Your task to perform on an android device: Go to Yahoo.com Image 0: 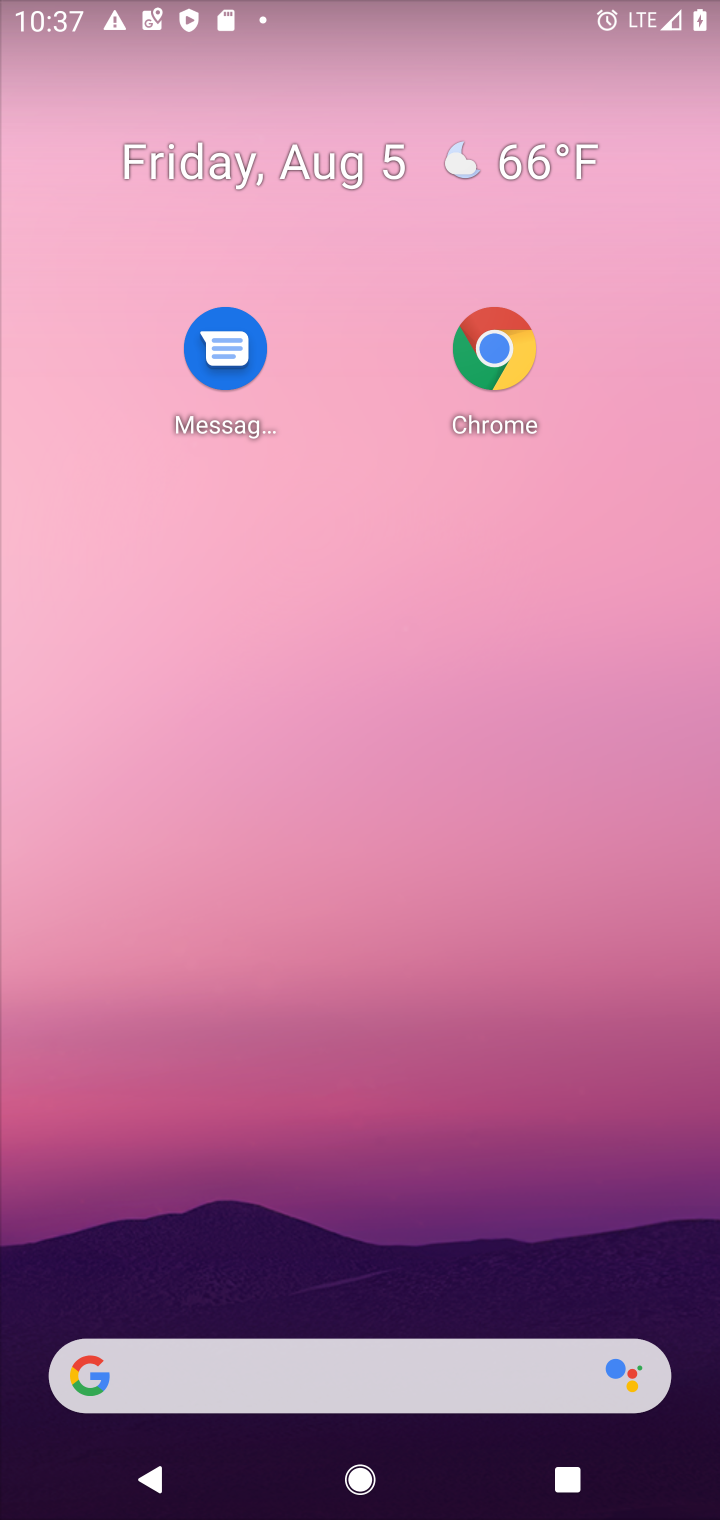
Step 0: press home button
Your task to perform on an android device: Go to Yahoo.com Image 1: 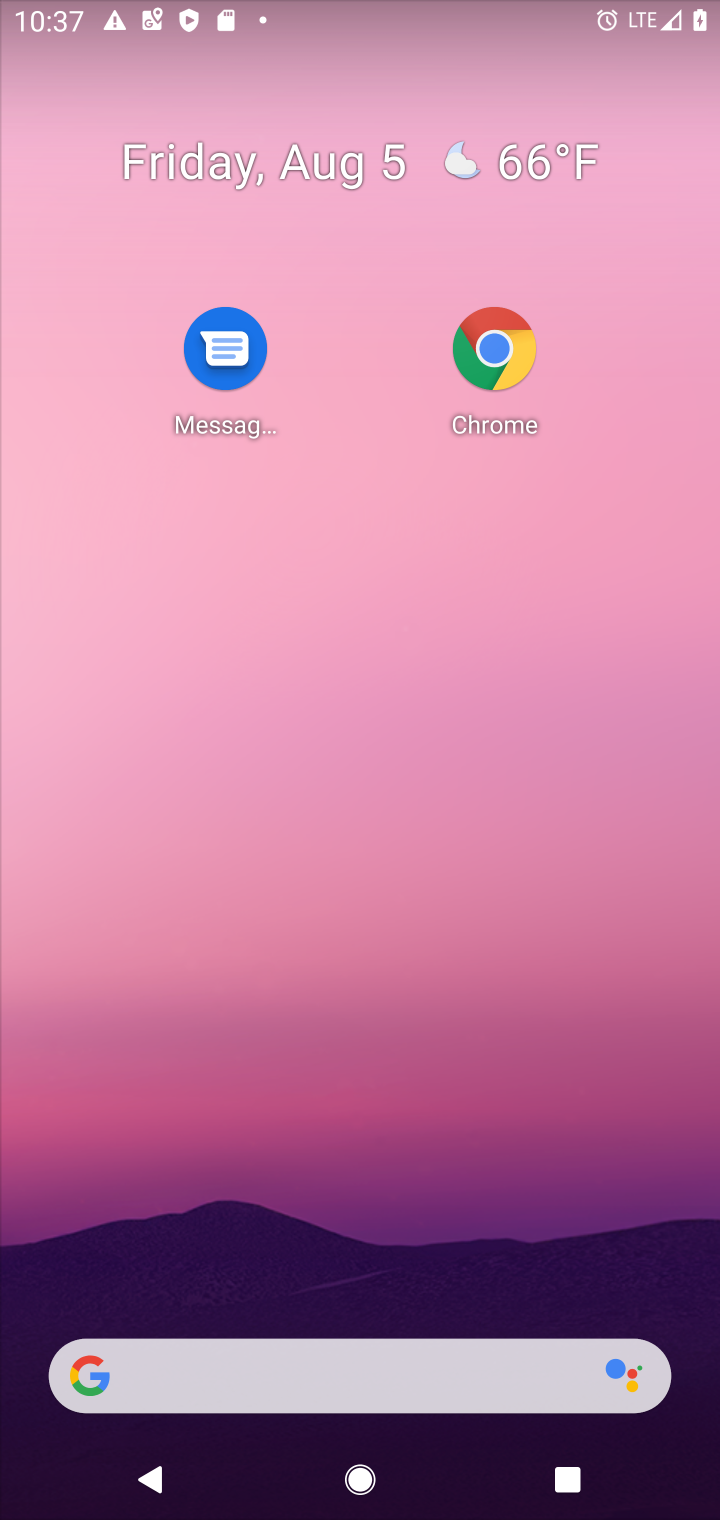
Step 1: drag from (364, 1401) to (352, 263)
Your task to perform on an android device: Go to Yahoo.com Image 2: 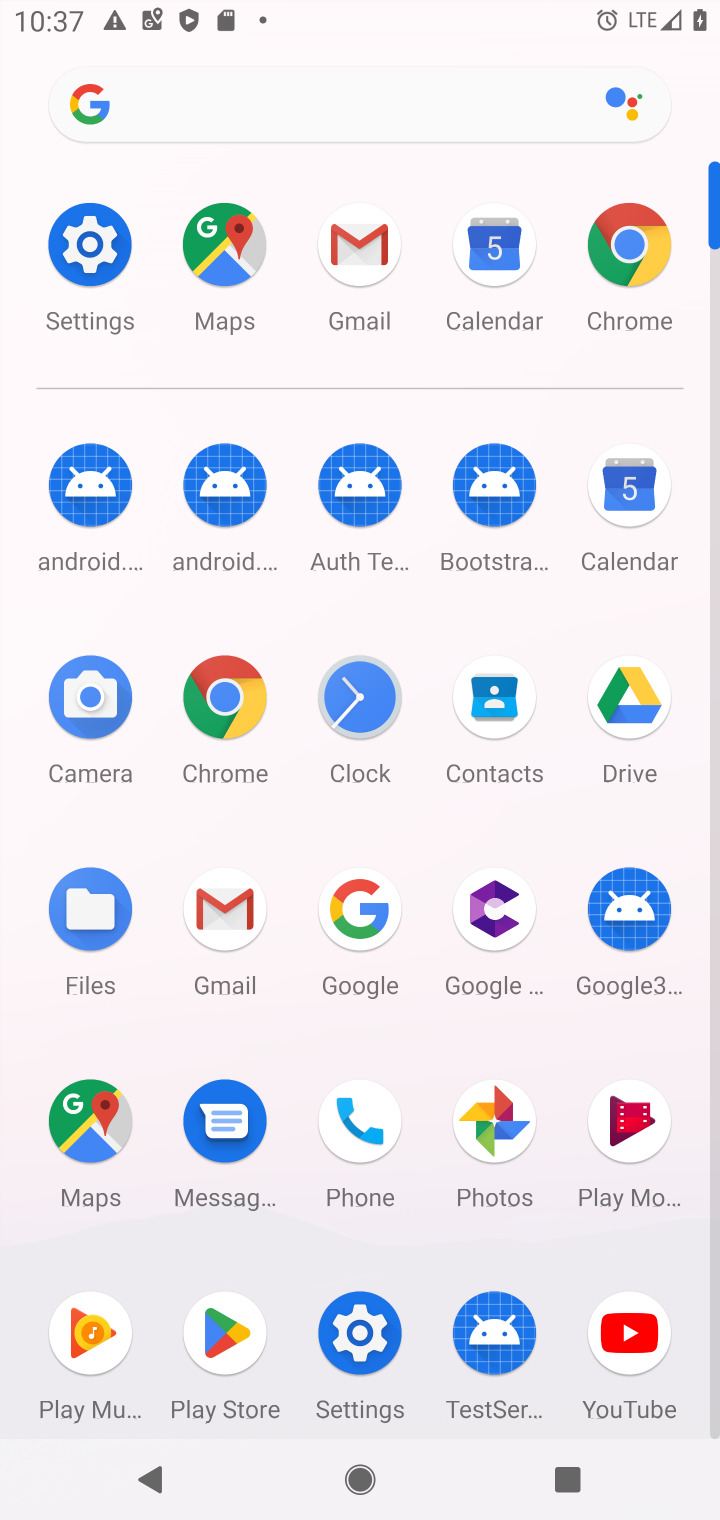
Step 2: click (612, 262)
Your task to perform on an android device: Go to Yahoo.com Image 3: 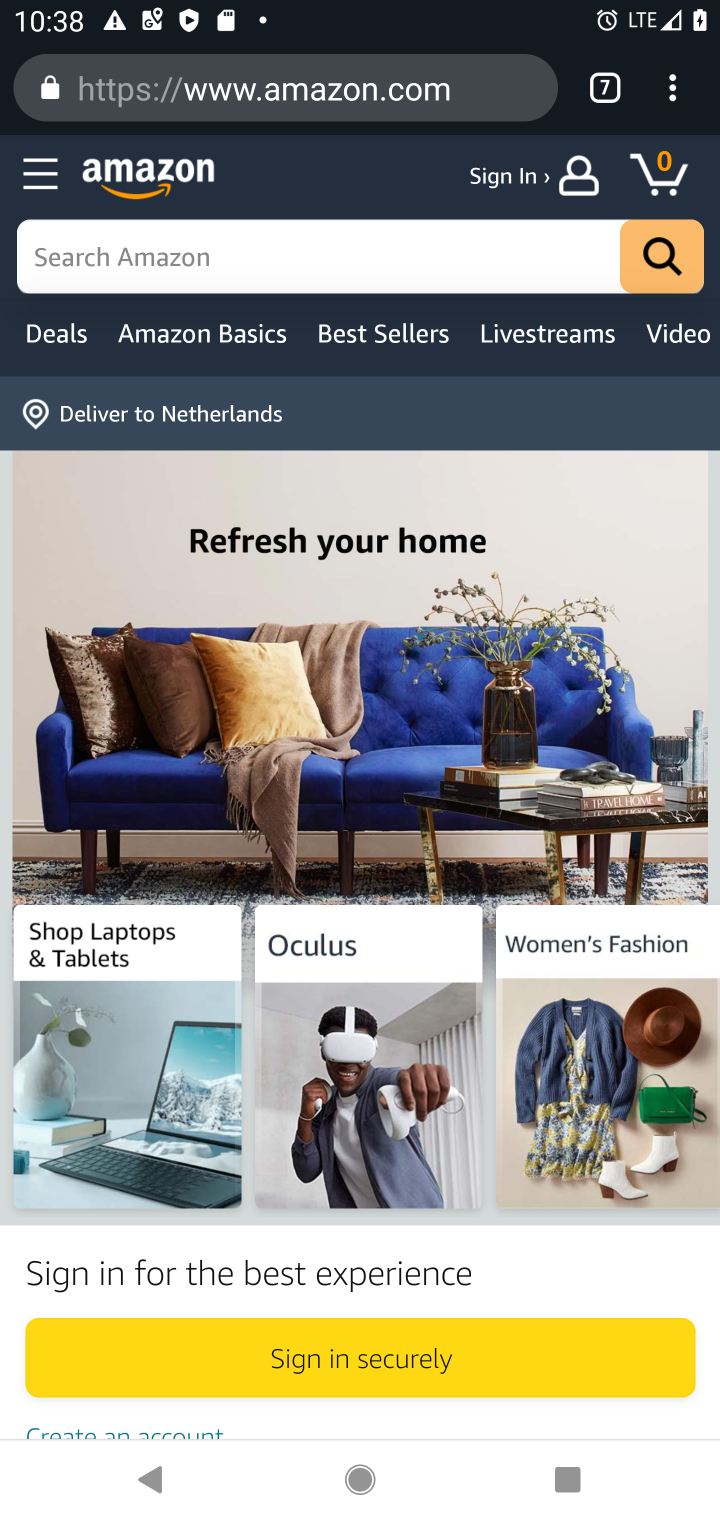
Step 3: click (603, 100)
Your task to perform on an android device: Go to Yahoo.com Image 4: 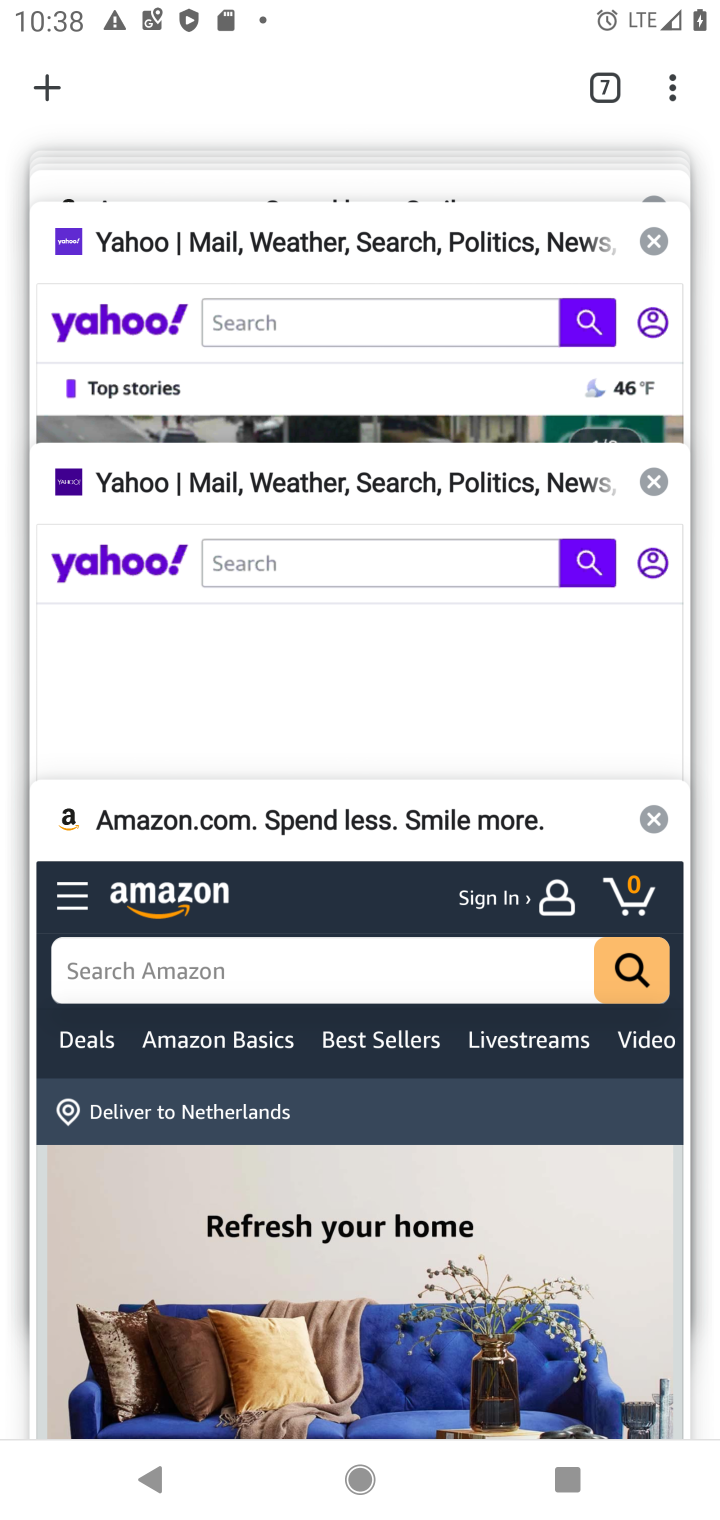
Step 4: click (64, 84)
Your task to perform on an android device: Go to Yahoo.com Image 5: 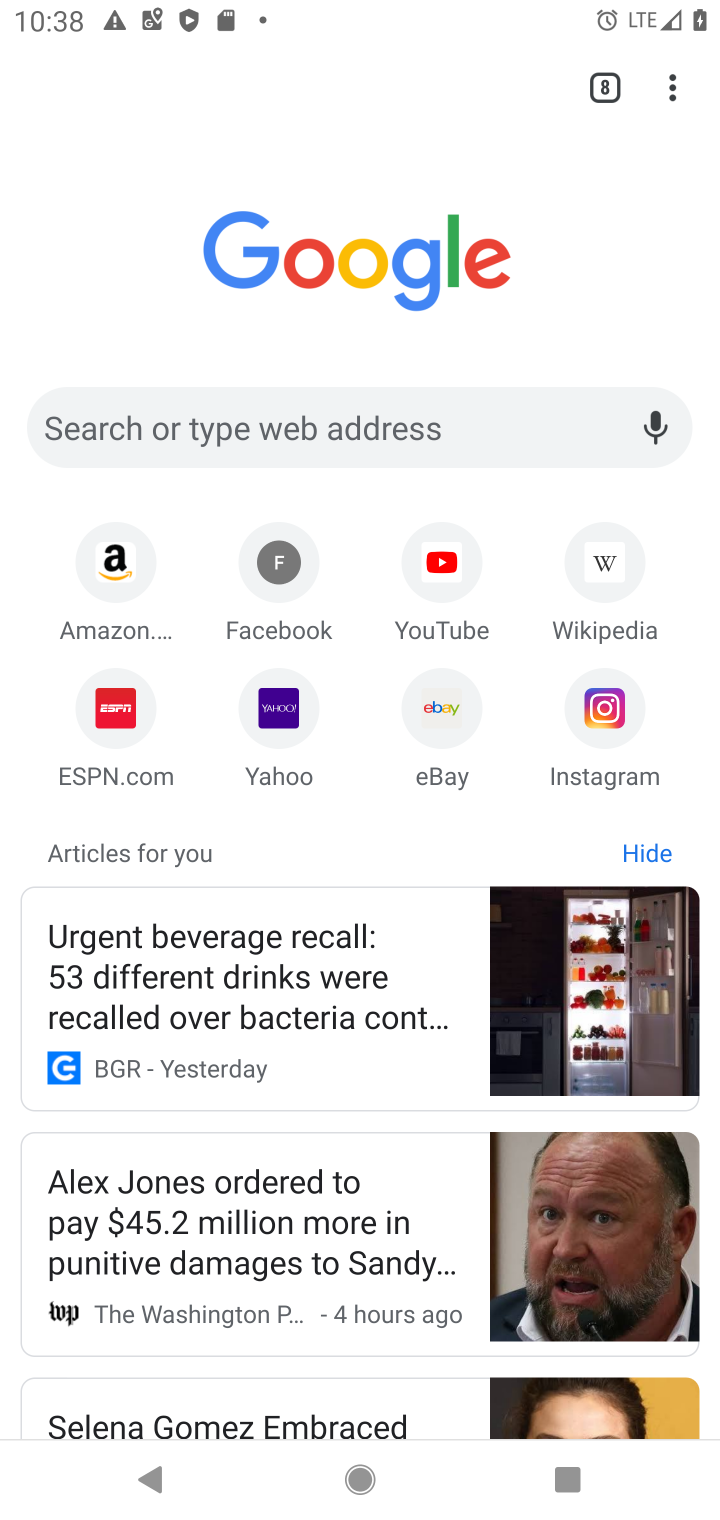
Step 5: click (277, 728)
Your task to perform on an android device: Go to Yahoo.com Image 6: 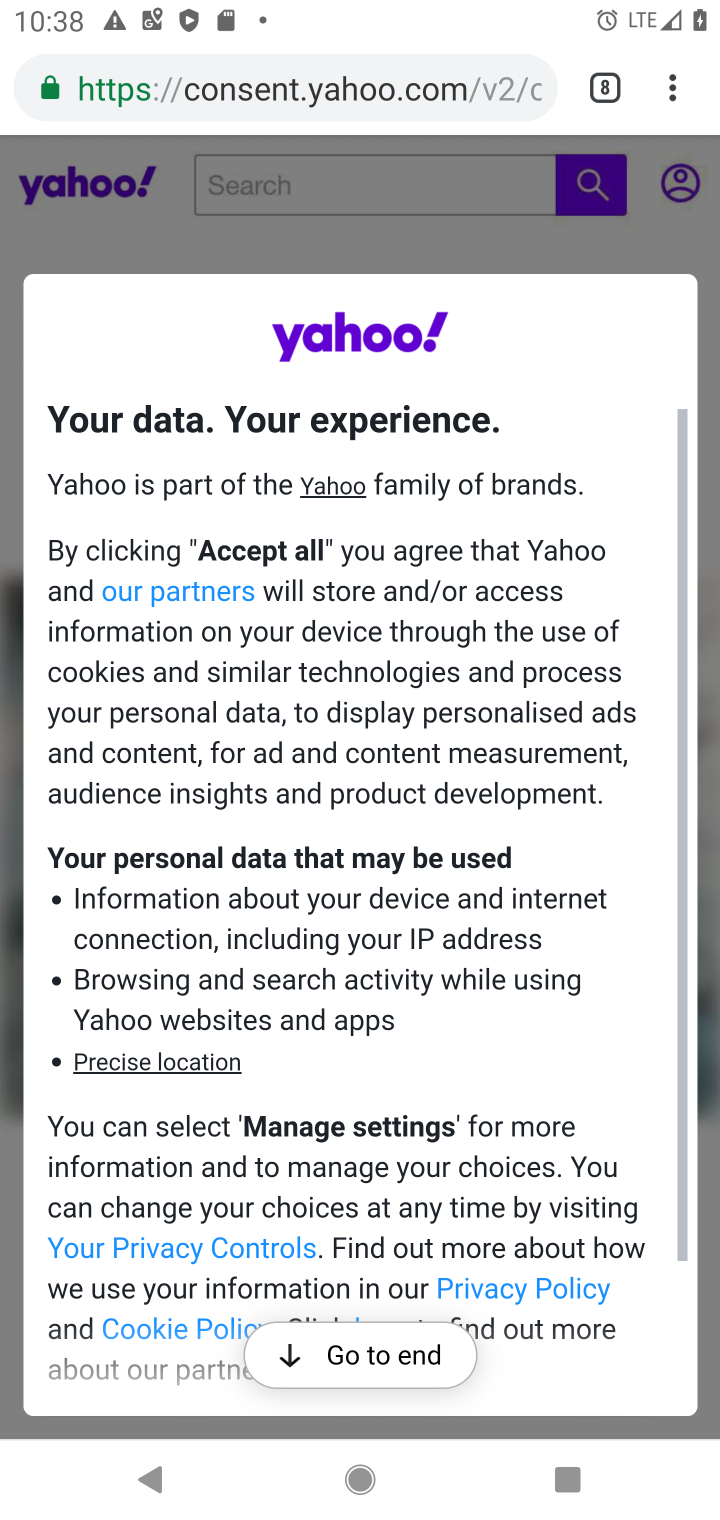
Step 6: drag from (319, 967) to (314, 682)
Your task to perform on an android device: Go to Yahoo.com Image 7: 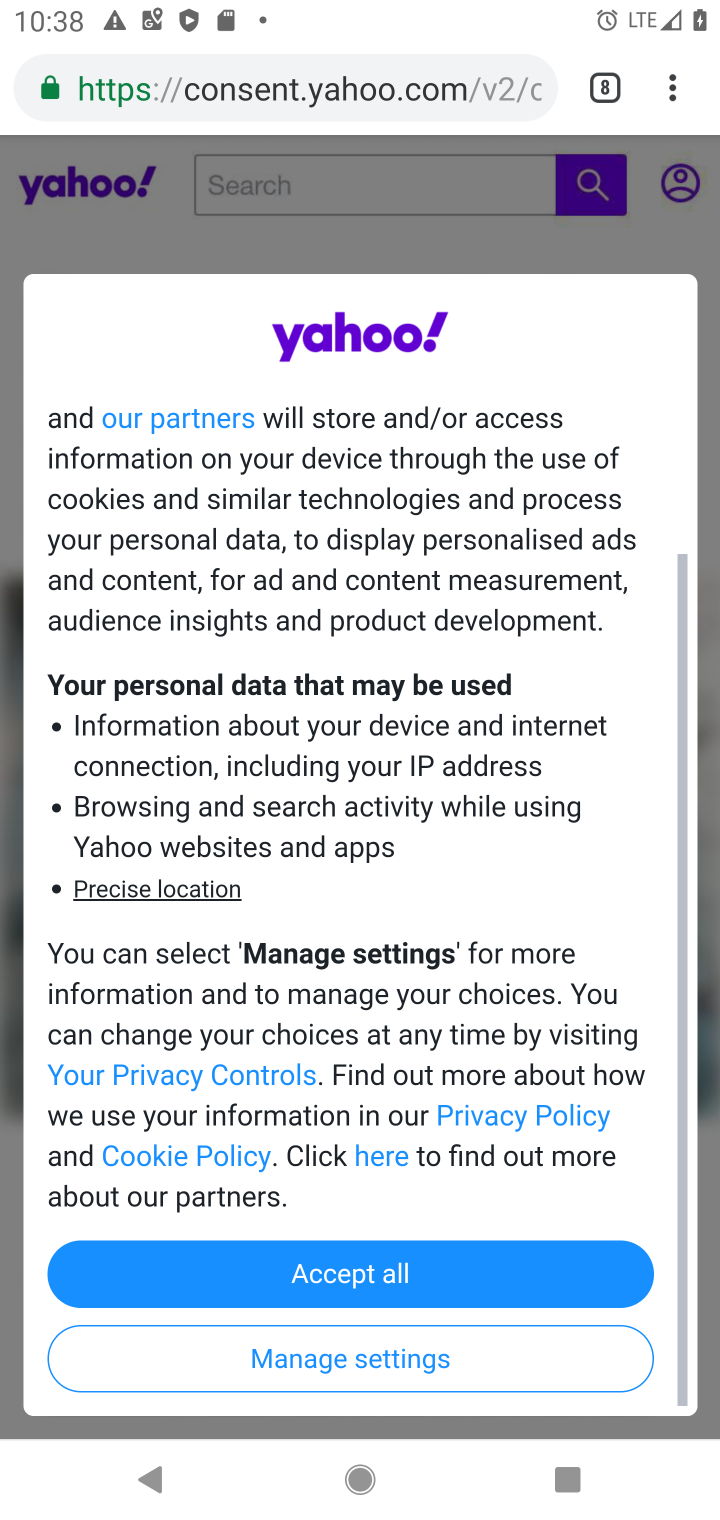
Step 7: click (376, 1274)
Your task to perform on an android device: Go to Yahoo.com Image 8: 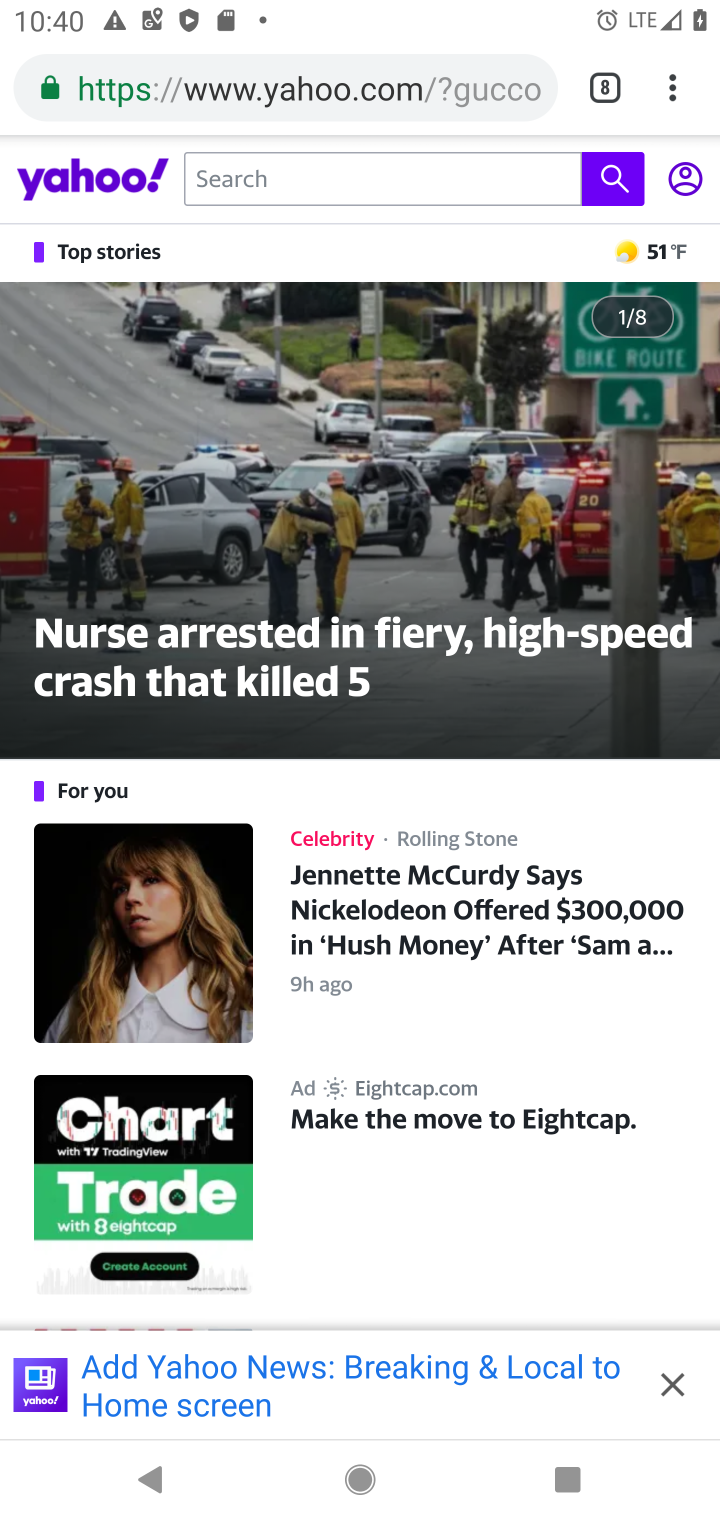
Step 8: task complete